Your task to perform on an android device: Open Google Chrome Image 0: 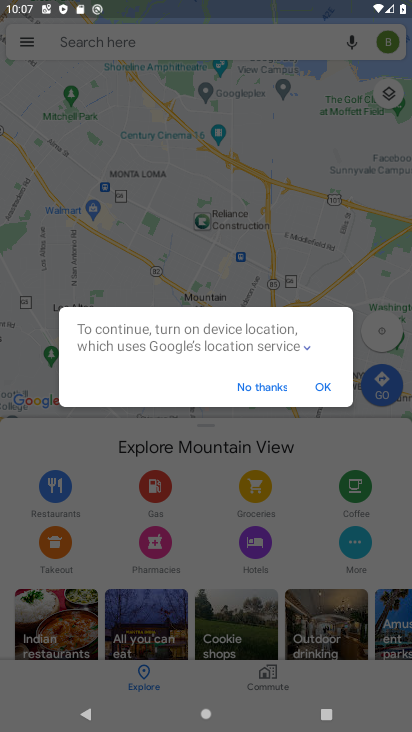
Step 0: click (313, 382)
Your task to perform on an android device: Open Google Chrome Image 1: 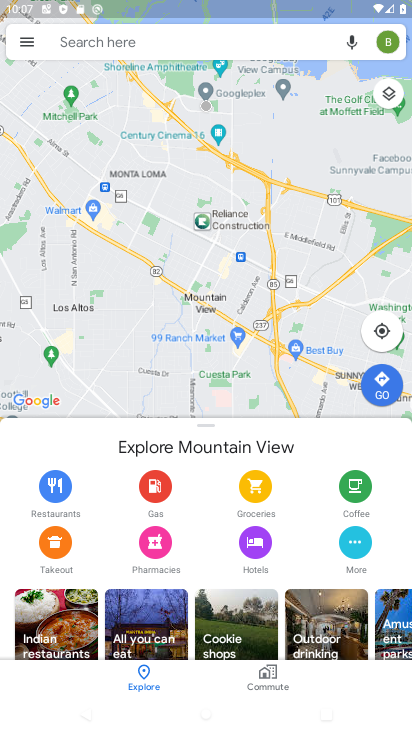
Step 1: press home button
Your task to perform on an android device: Open Google Chrome Image 2: 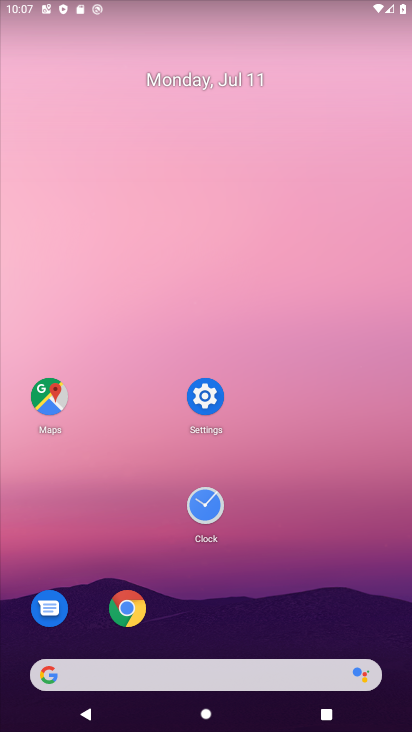
Step 2: click (129, 607)
Your task to perform on an android device: Open Google Chrome Image 3: 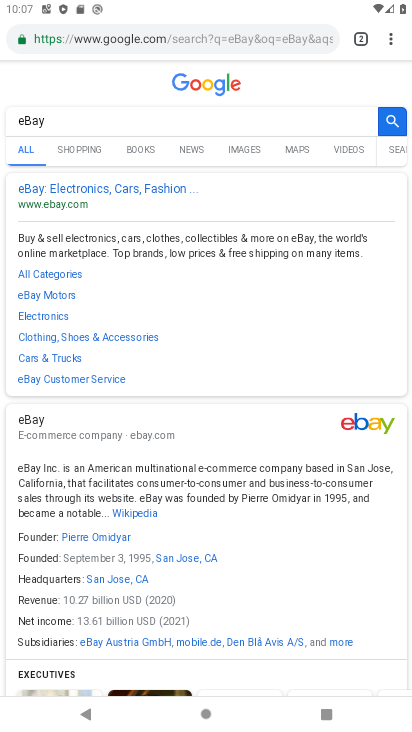
Step 3: task complete